Your task to perform on an android device: see sites visited before in the chrome app Image 0: 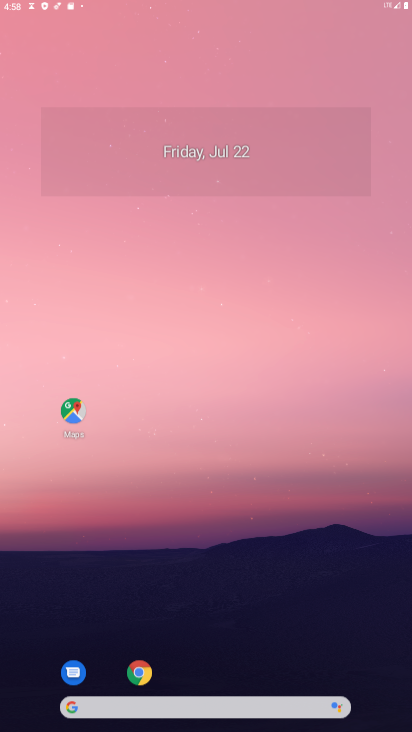
Step 0: press home button
Your task to perform on an android device: see sites visited before in the chrome app Image 1: 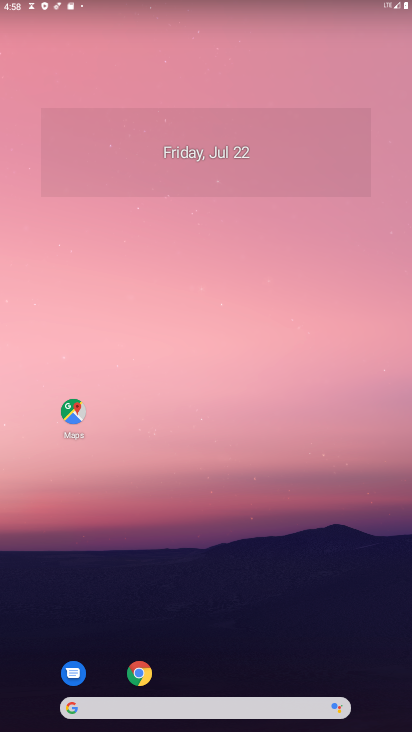
Step 1: drag from (300, 671) to (121, 123)
Your task to perform on an android device: see sites visited before in the chrome app Image 2: 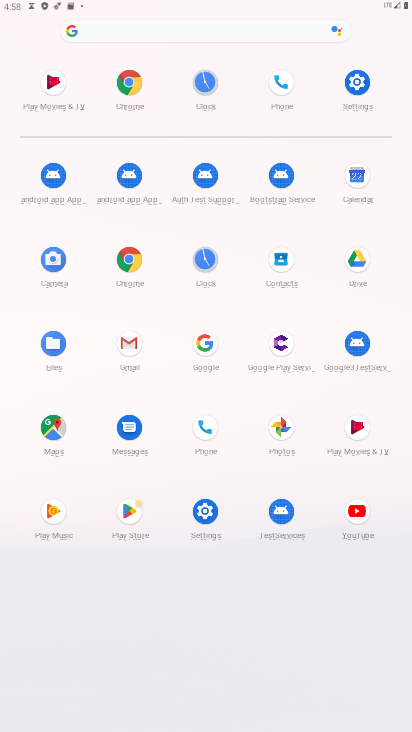
Step 2: click (125, 84)
Your task to perform on an android device: see sites visited before in the chrome app Image 3: 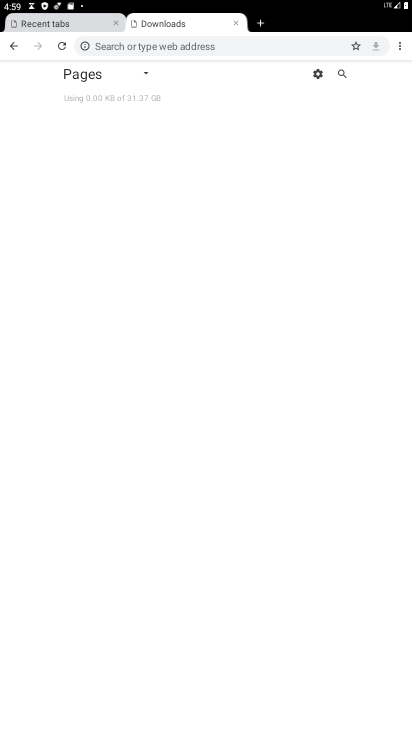
Step 3: task complete